Your task to perform on an android device: Go to CNN.com Image 0: 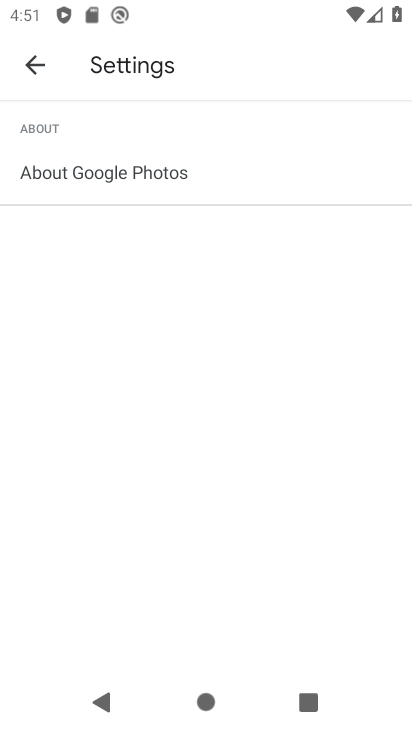
Step 0: drag from (398, 468) to (412, 403)
Your task to perform on an android device: Go to CNN.com Image 1: 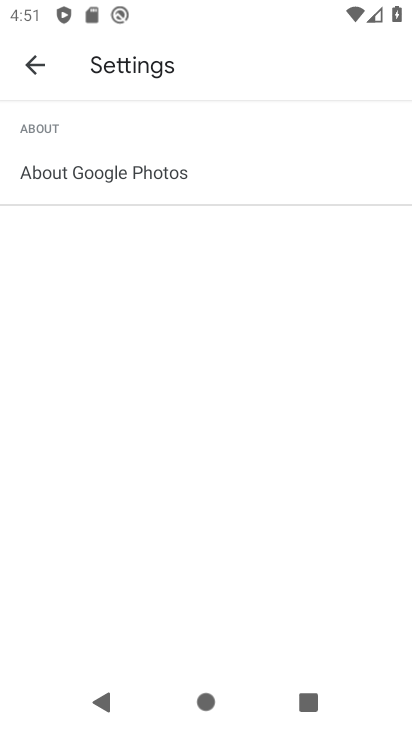
Step 1: press home button
Your task to perform on an android device: Go to CNN.com Image 2: 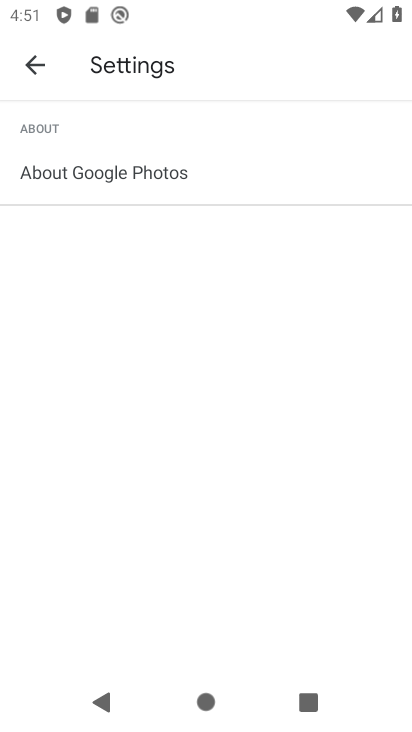
Step 2: click (412, 403)
Your task to perform on an android device: Go to CNN.com Image 3: 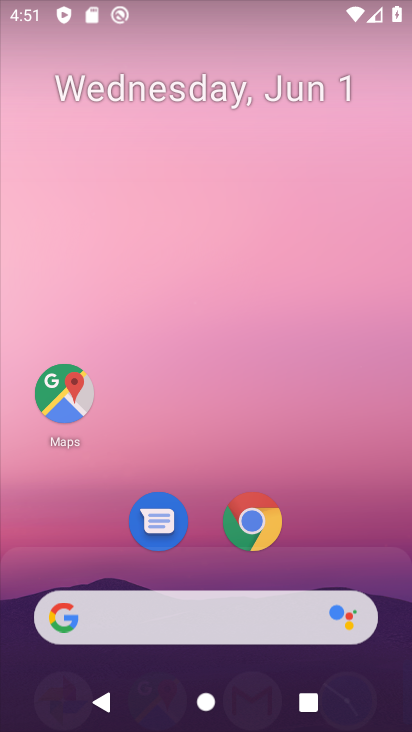
Step 3: click (202, 628)
Your task to perform on an android device: Go to CNN.com Image 4: 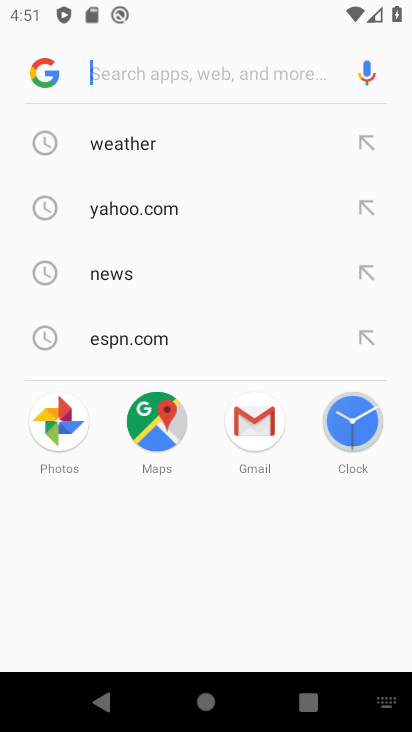
Step 4: type "CNN.com"
Your task to perform on an android device: Go to CNN.com Image 5: 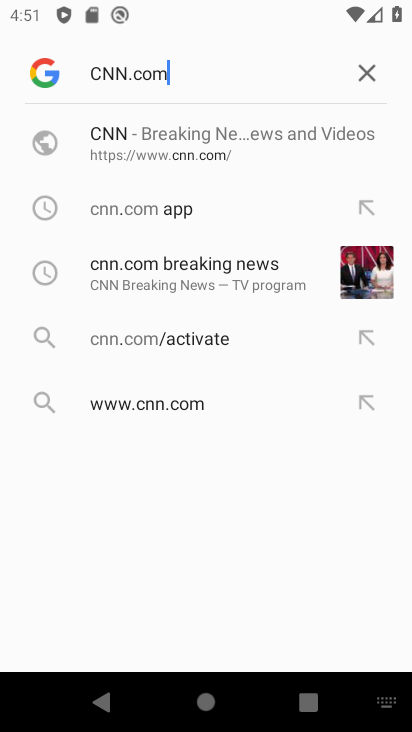
Step 5: click (221, 145)
Your task to perform on an android device: Go to CNN.com Image 6: 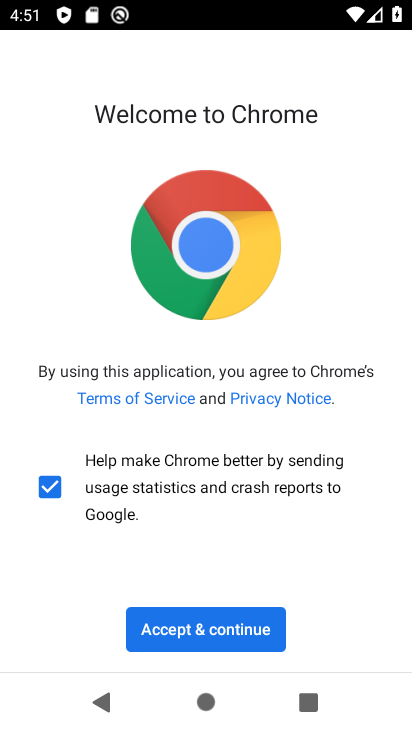
Step 6: click (260, 631)
Your task to perform on an android device: Go to CNN.com Image 7: 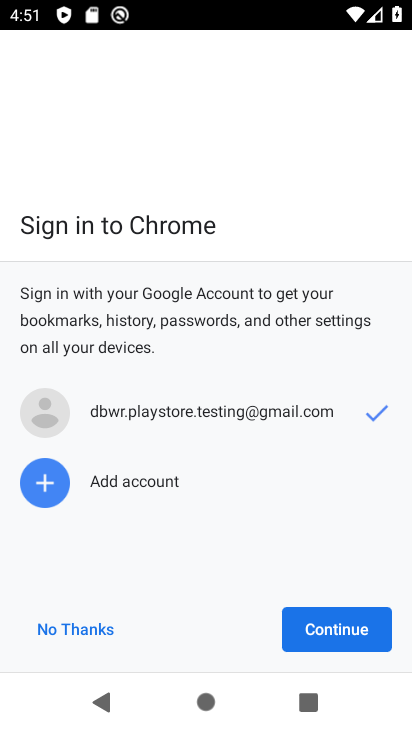
Step 7: click (316, 626)
Your task to perform on an android device: Go to CNN.com Image 8: 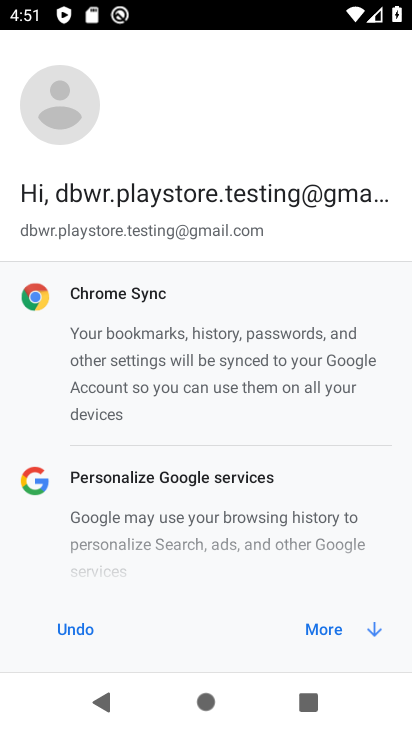
Step 8: click (309, 628)
Your task to perform on an android device: Go to CNN.com Image 9: 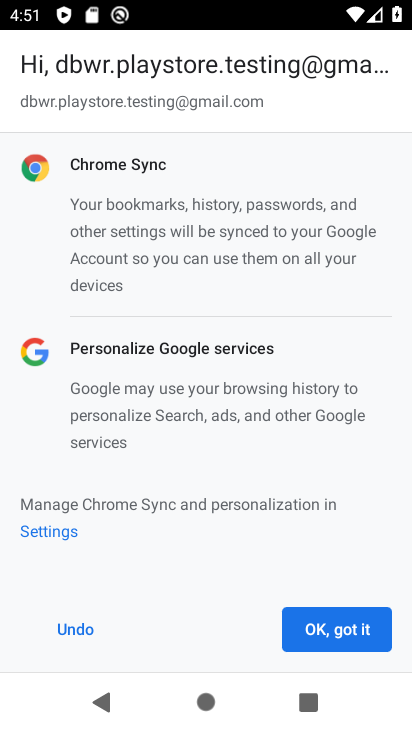
Step 9: click (333, 628)
Your task to perform on an android device: Go to CNN.com Image 10: 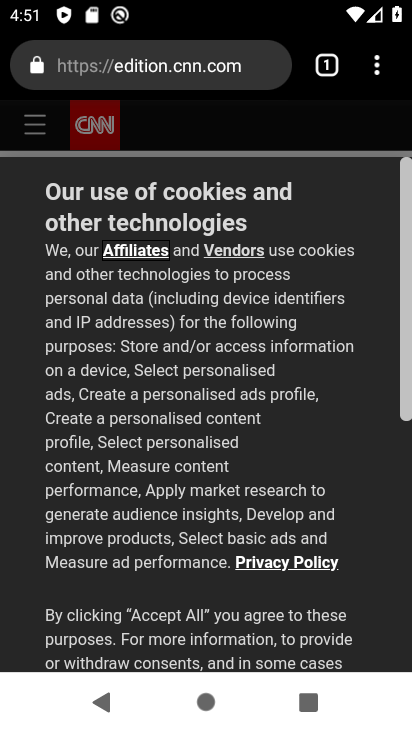
Step 10: drag from (183, 566) to (298, 197)
Your task to perform on an android device: Go to CNN.com Image 11: 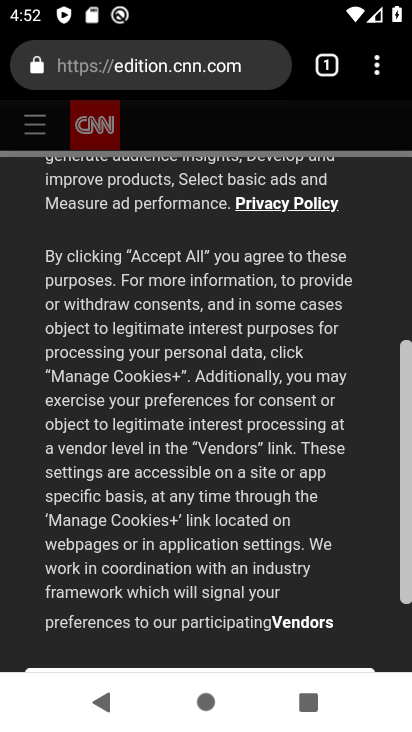
Step 11: drag from (201, 649) to (262, 373)
Your task to perform on an android device: Go to CNN.com Image 12: 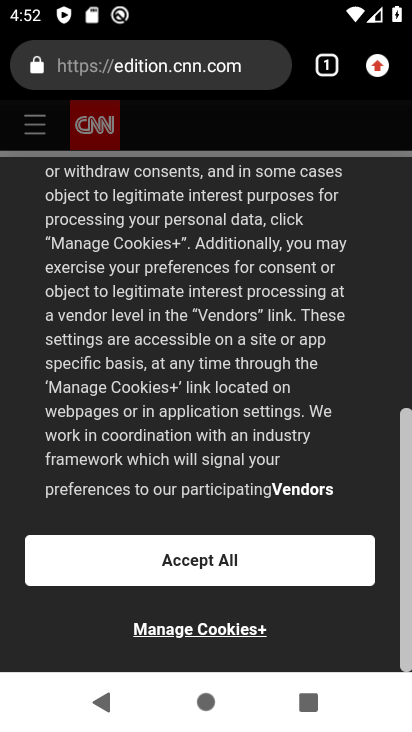
Step 12: click (239, 590)
Your task to perform on an android device: Go to CNN.com Image 13: 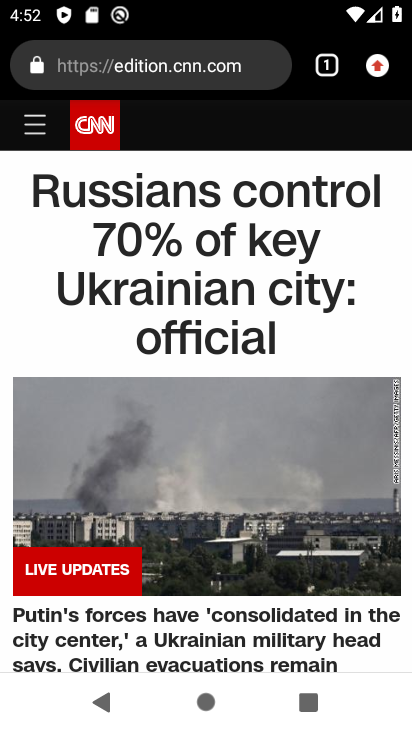
Step 13: task complete